Your task to perform on an android device: Open privacy settings Image 0: 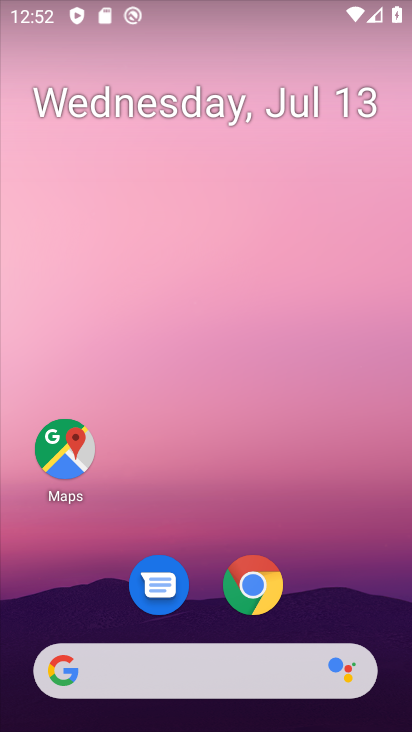
Step 0: drag from (348, 242) to (345, 68)
Your task to perform on an android device: Open privacy settings Image 1: 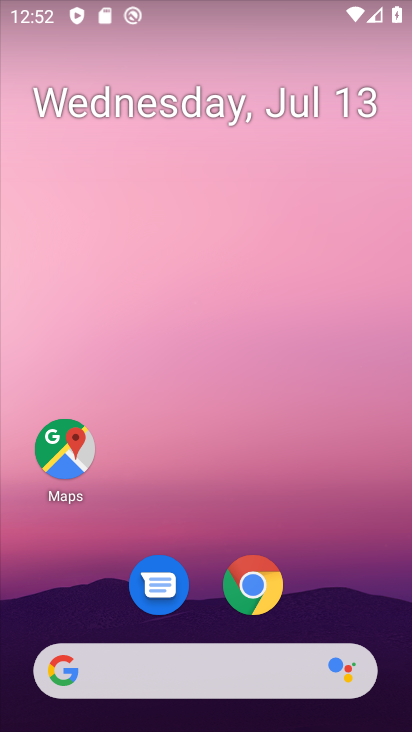
Step 1: drag from (340, 597) to (335, 57)
Your task to perform on an android device: Open privacy settings Image 2: 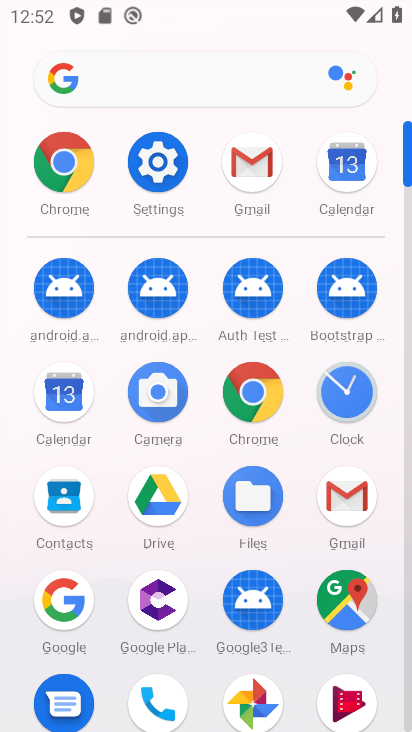
Step 2: click (167, 161)
Your task to perform on an android device: Open privacy settings Image 3: 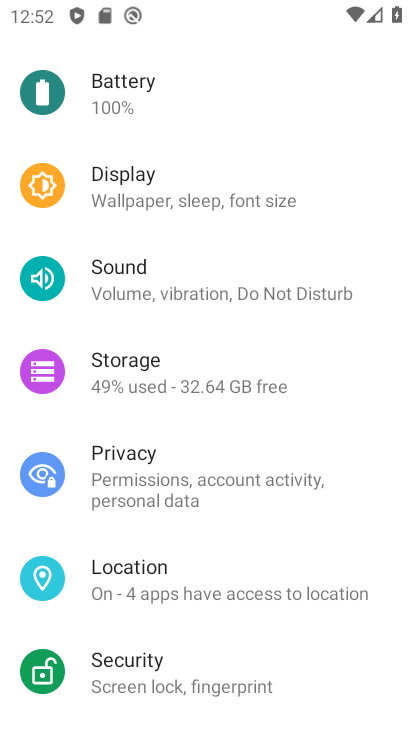
Step 3: click (225, 478)
Your task to perform on an android device: Open privacy settings Image 4: 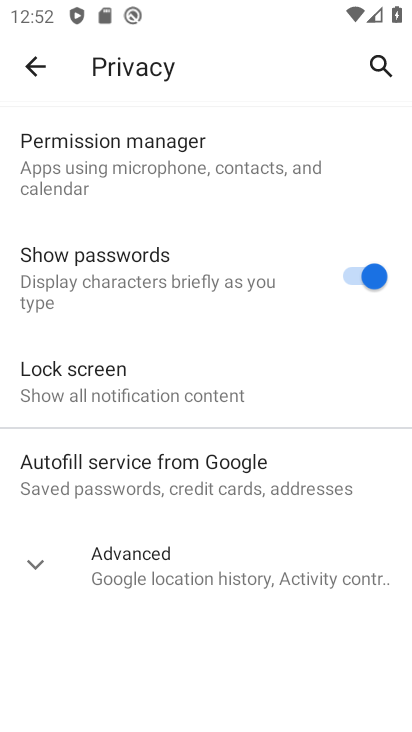
Step 4: task complete